Your task to perform on an android device: turn off priority inbox in the gmail app Image 0: 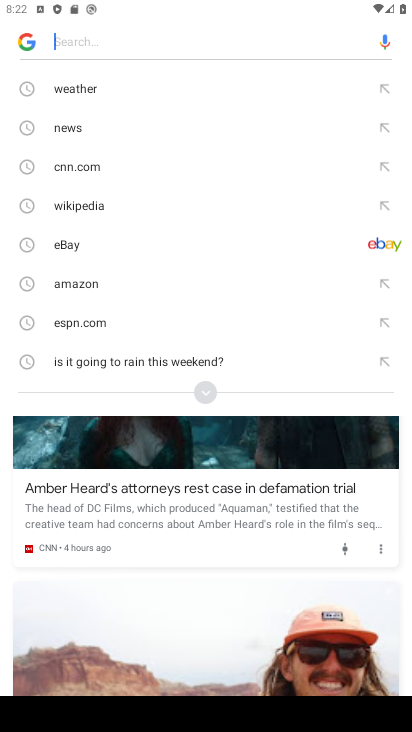
Step 0: press home button
Your task to perform on an android device: turn off priority inbox in the gmail app Image 1: 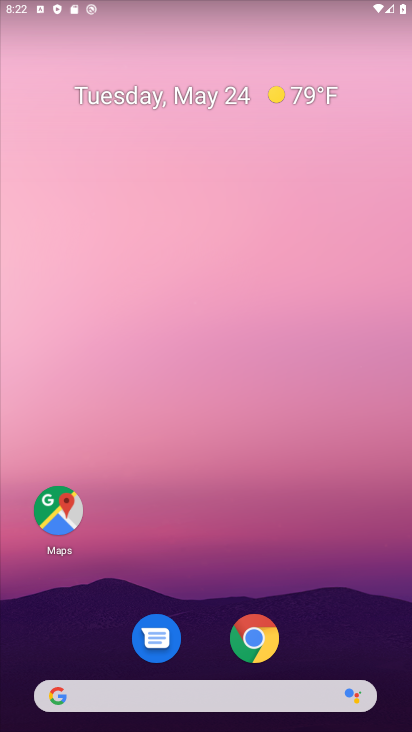
Step 1: drag from (166, 727) to (224, 42)
Your task to perform on an android device: turn off priority inbox in the gmail app Image 2: 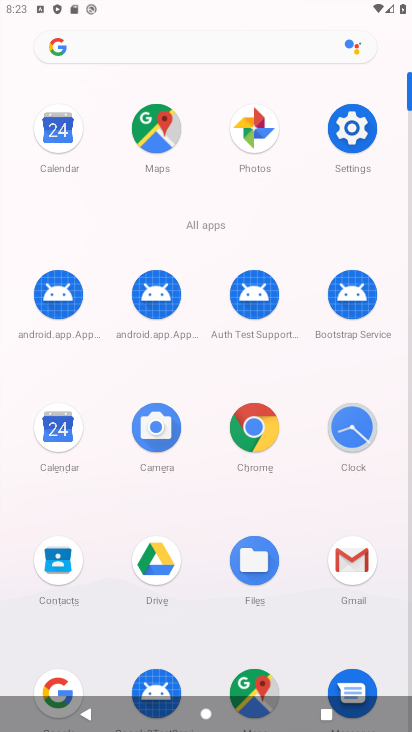
Step 2: click (354, 584)
Your task to perform on an android device: turn off priority inbox in the gmail app Image 3: 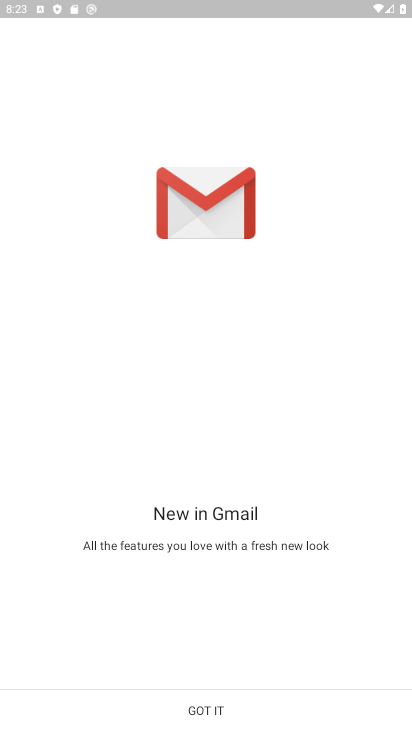
Step 3: click (260, 710)
Your task to perform on an android device: turn off priority inbox in the gmail app Image 4: 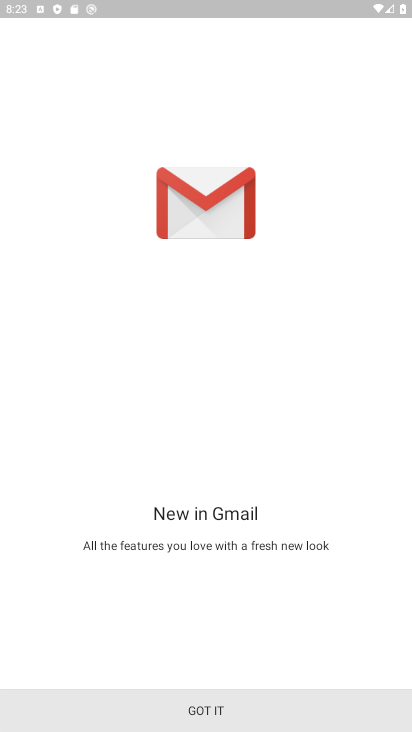
Step 4: click (260, 710)
Your task to perform on an android device: turn off priority inbox in the gmail app Image 5: 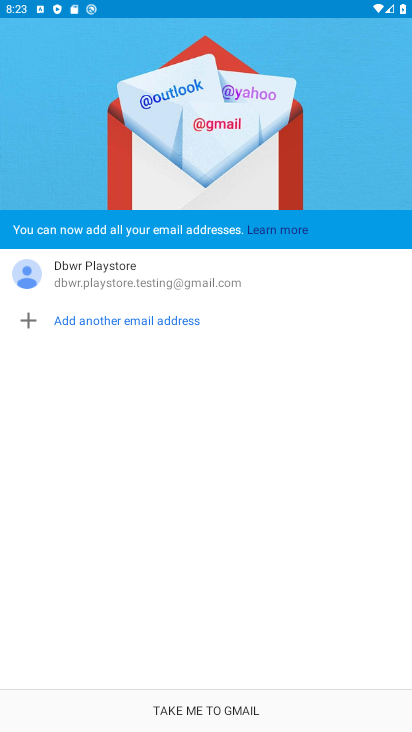
Step 5: click (260, 710)
Your task to perform on an android device: turn off priority inbox in the gmail app Image 6: 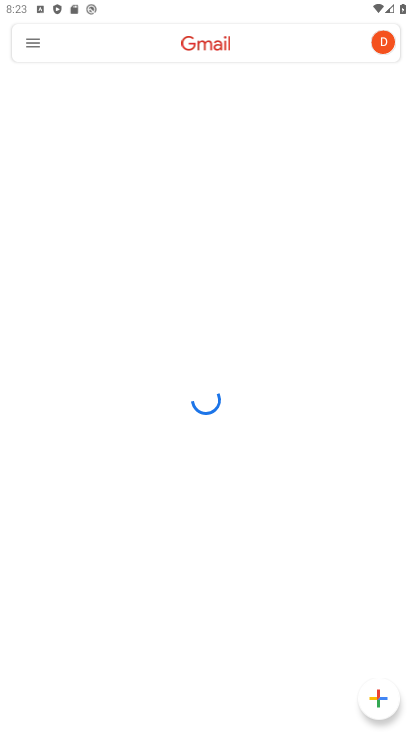
Step 6: click (34, 50)
Your task to perform on an android device: turn off priority inbox in the gmail app Image 7: 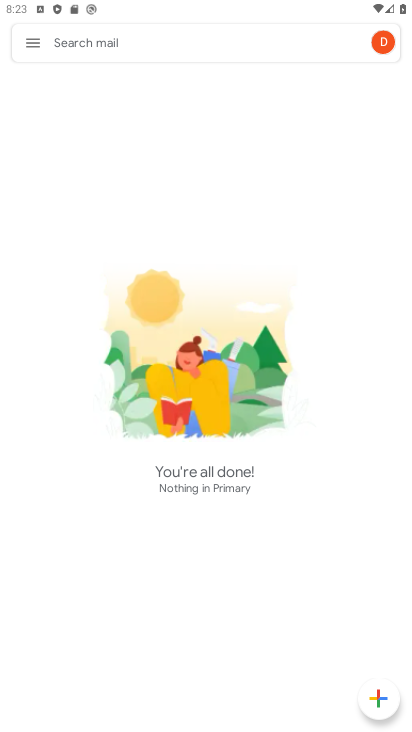
Step 7: click (28, 41)
Your task to perform on an android device: turn off priority inbox in the gmail app Image 8: 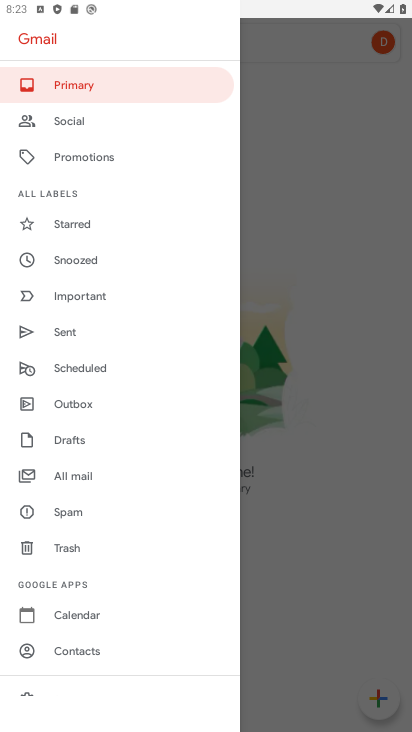
Step 8: drag from (133, 626) to (200, 191)
Your task to perform on an android device: turn off priority inbox in the gmail app Image 9: 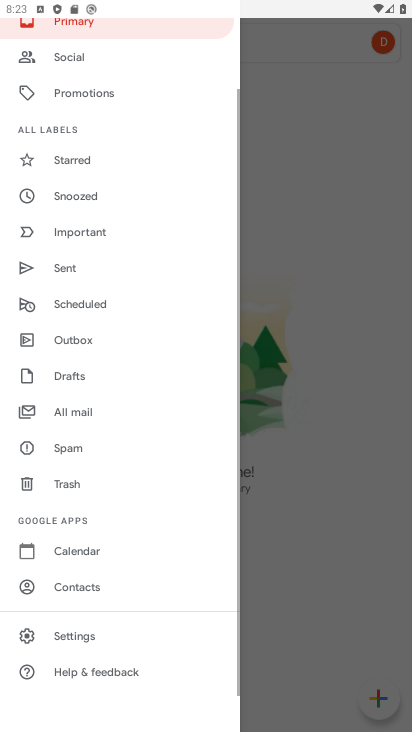
Step 9: click (76, 644)
Your task to perform on an android device: turn off priority inbox in the gmail app Image 10: 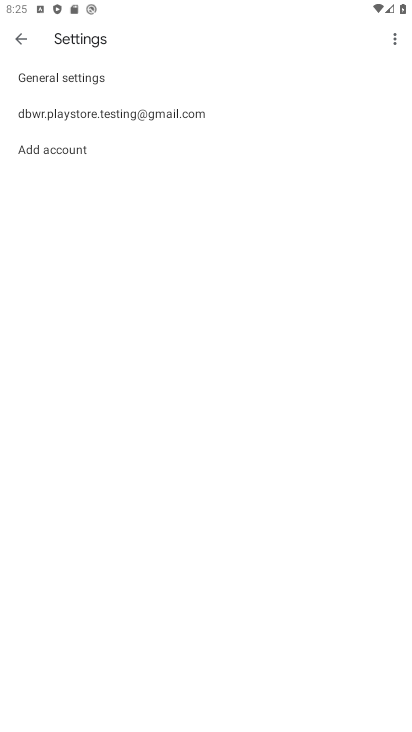
Step 10: click (193, 100)
Your task to perform on an android device: turn off priority inbox in the gmail app Image 11: 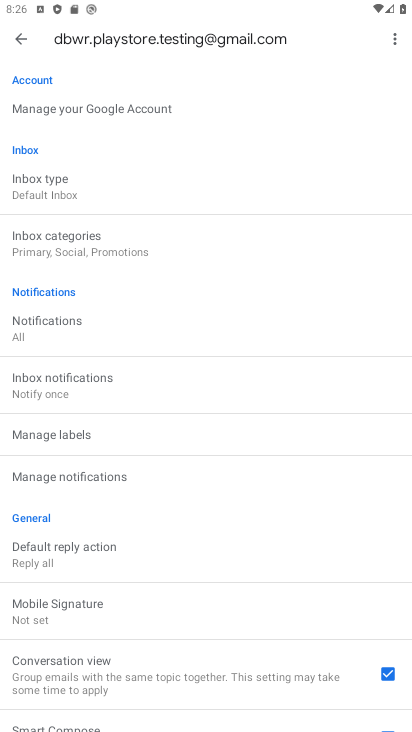
Step 11: click (45, 198)
Your task to perform on an android device: turn off priority inbox in the gmail app Image 12: 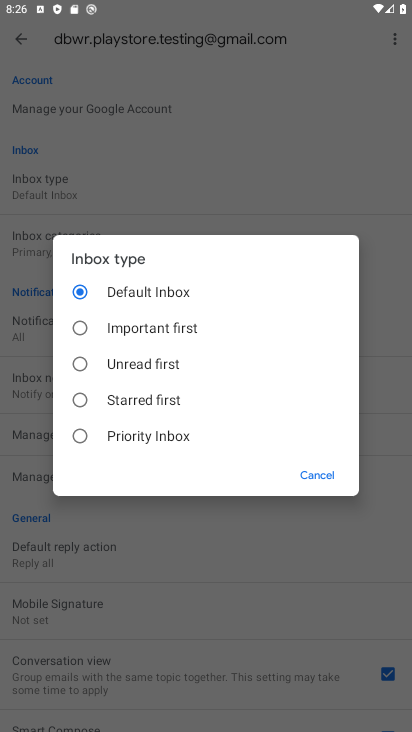
Step 12: task complete